Your task to perform on an android device: open the mobile data screen to see how much data has been used Image 0: 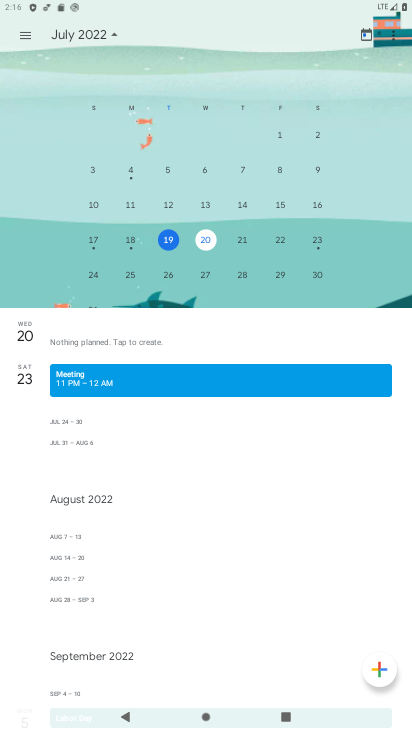
Step 0: press home button
Your task to perform on an android device: open the mobile data screen to see how much data has been used Image 1: 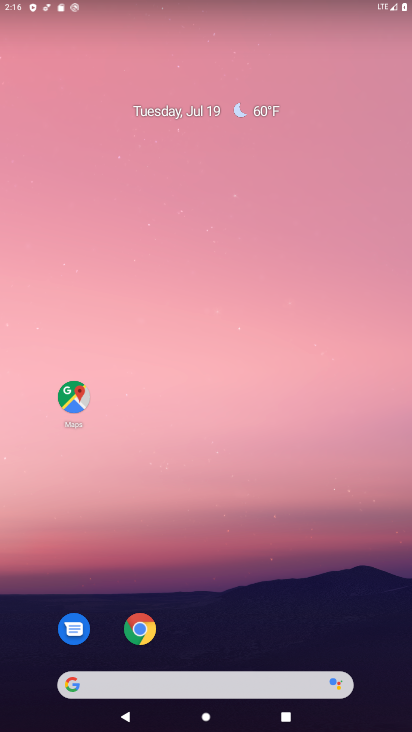
Step 1: drag from (204, 626) to (226, 144)
Your task to perform on an android device: open the mobile data screen to see how much data has been used Image 2: 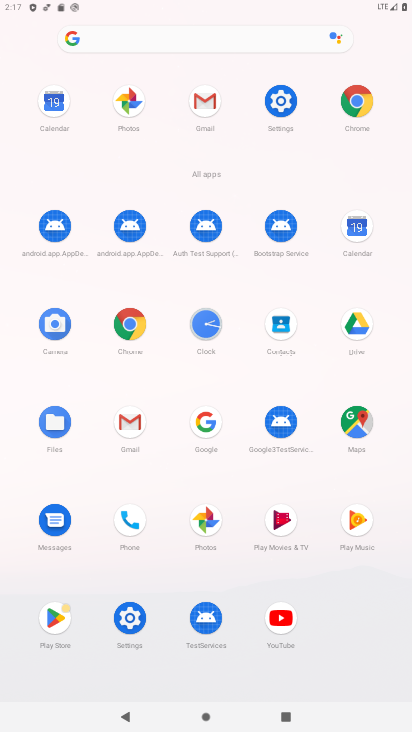
Step 2: click (262, 101)
Your task to perform on an android device: open the mobile data screen to see how much data has been used Image 3: 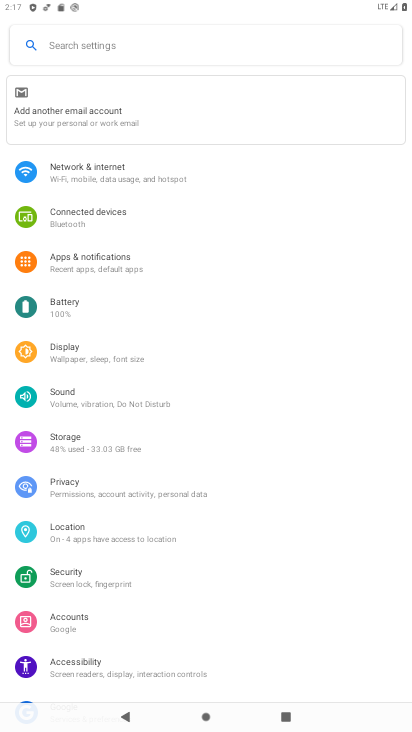
Step 3: click (134, 172)
Your task to perform on an android device: open the mobile data screen to see how much data has been used Image 4: 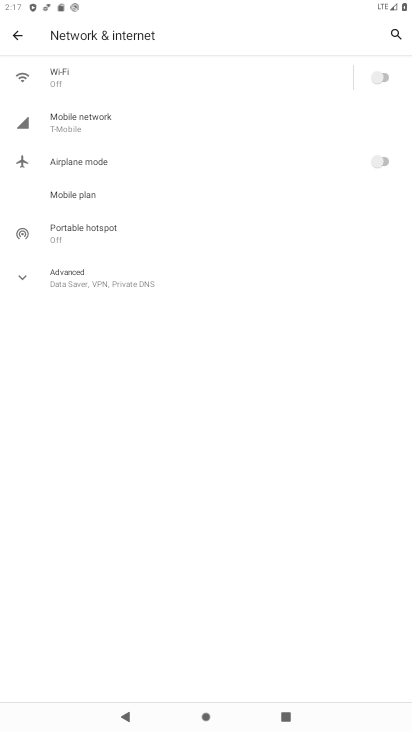
Step 4: click (103, 126)
Your task to perform on an android device: open the mobile data screen to see how much data has been used Image 5: 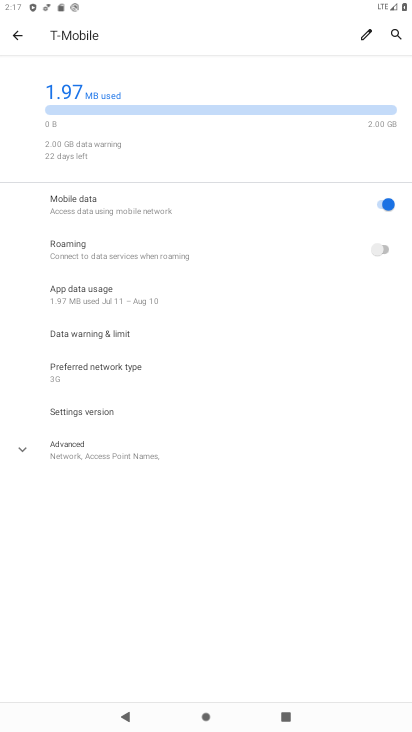
Step 5: click (123, 297)
Your task to perform on an android device: open the mobile data screen to see how much data has been used Image 6: 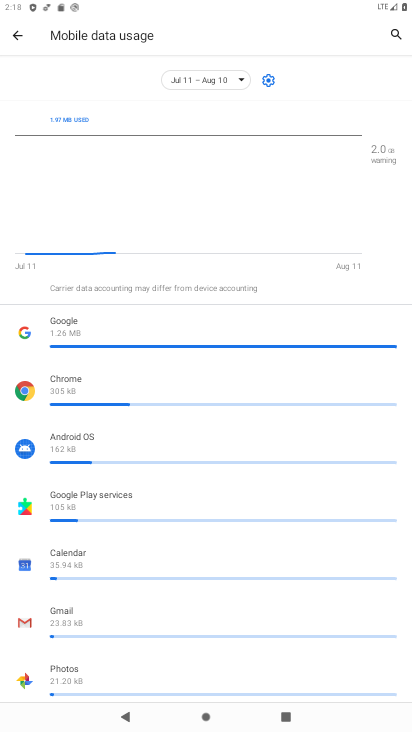
Step 6: task complete